Your task to perform on an android device: Open Chrome and go to settings Image 0: 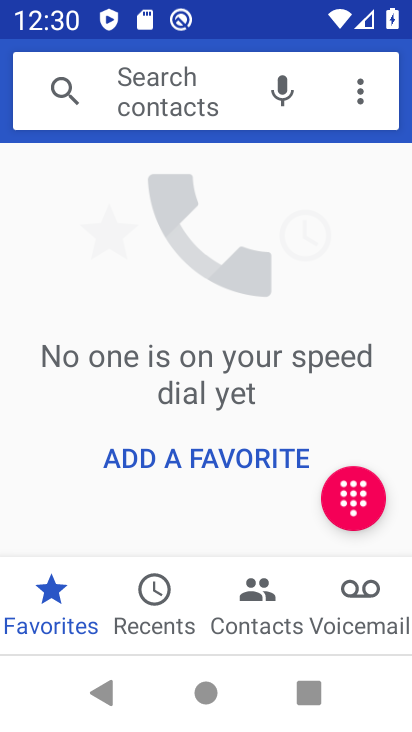
Step 0: press home button
Your task to perform on an android device: Open Chrome and go to settings Image 1: 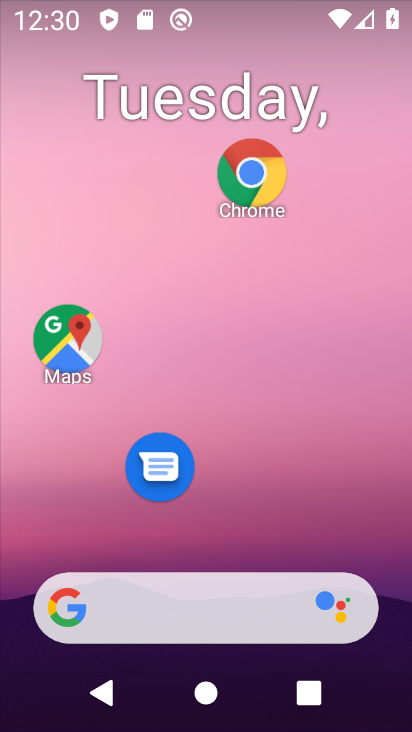
Step 1: drag from (259, 592) to (295, 93)
Your task to perform on an android device: Open Chrome and go to settings Image 2: 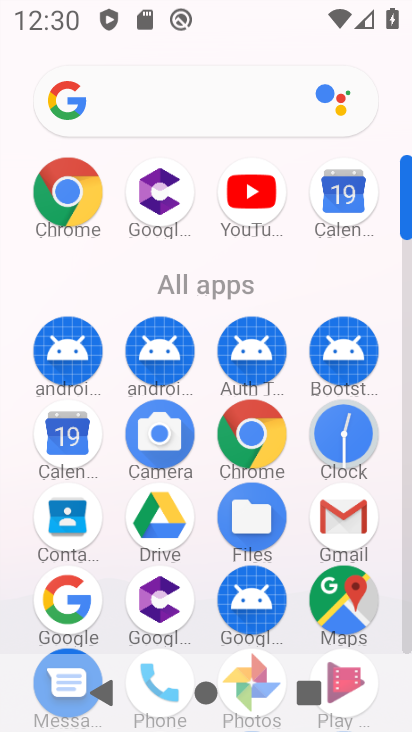
Step 2: click (285, 443)
Your task to perform on an android device: Open Chrome and go to settings Image 3: 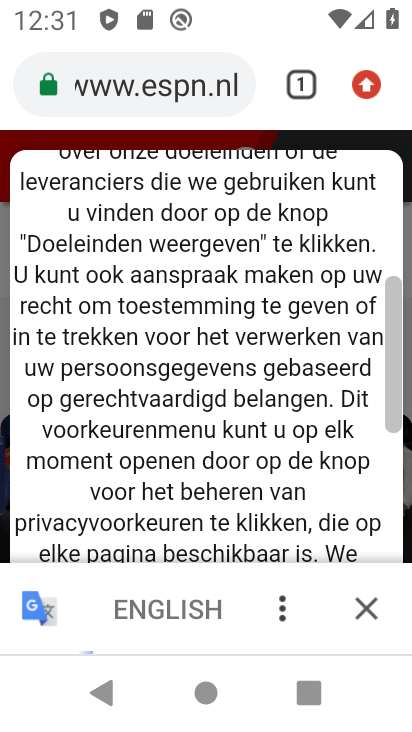
Step 3: click (356, 82)
Your task to perform on an android device: Open Chrome and go to settings Image 4: 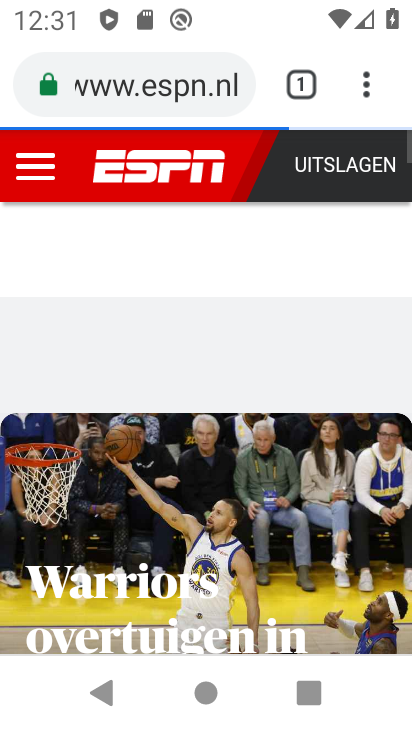
Step 4: click (354, 81)
Your task to perform on an android device: Open Chrome and go to settings Image 5: 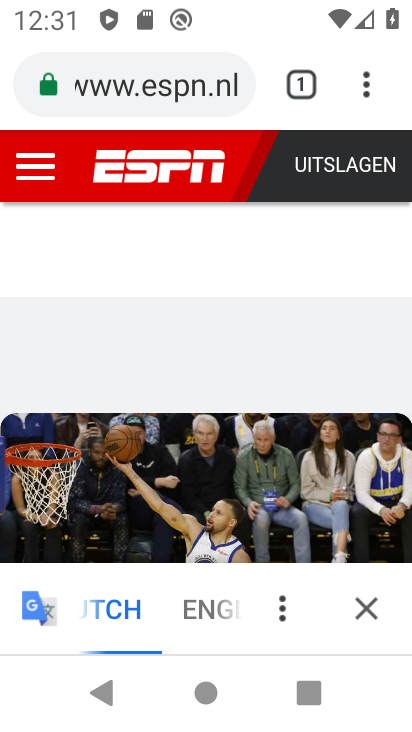
Step 5: click (372, 90)
Your task to perform on an android device: Open Chrome and go to settings Image 6: 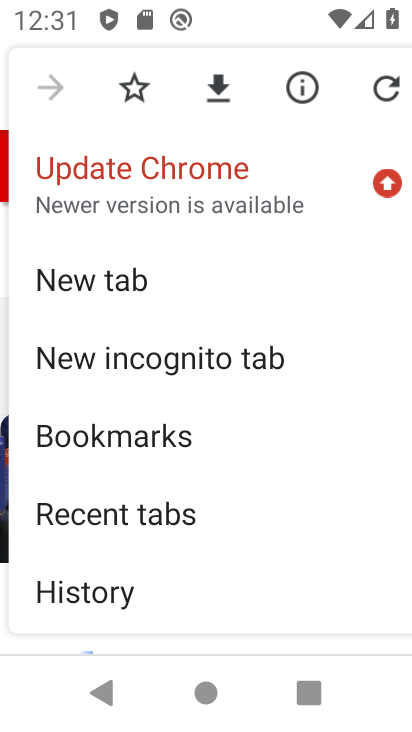
Step 6: drag from (243, 474) to (295, 105)
Your task to perform on an android device: Open Chrome and go to settings Image 7: 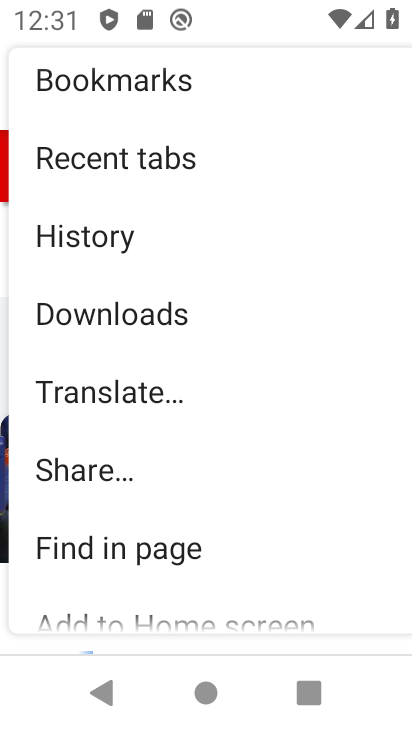
Step 7: drag from (225, 543) to (305, 165)
Your task to perform on an android device: Open Chrome and go to settings Image 8: 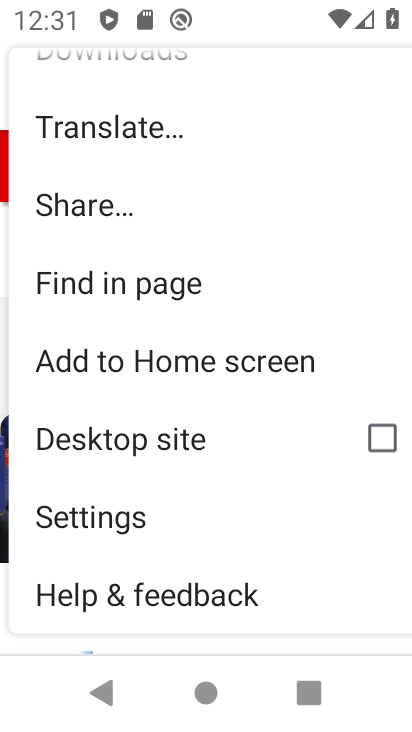
Step 8: click (139, 518)
Your task to perform on an android device: Open Chrome and go to settings Image 9: 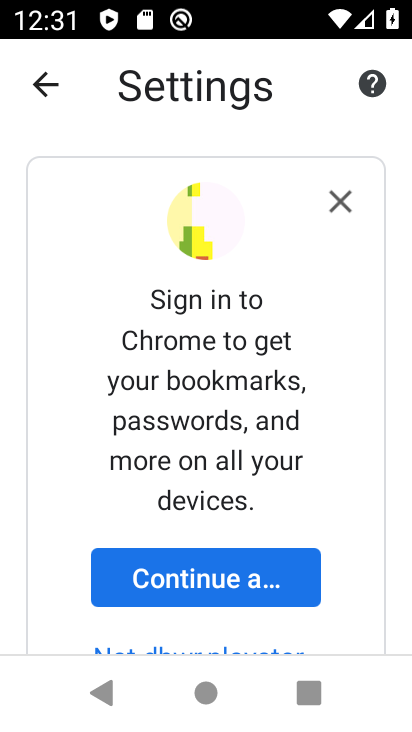
Step 9: task complete